Your task to perform on an android device: Open the map Image 0: 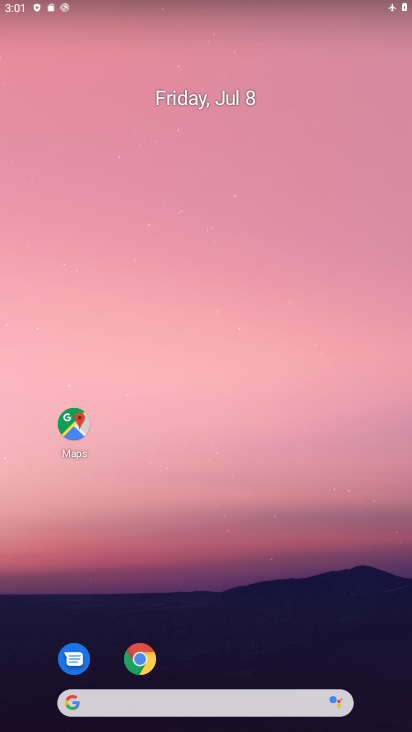
Step 0: click (74, 430)
Your task to perform on an android device: Open the map Image 1: 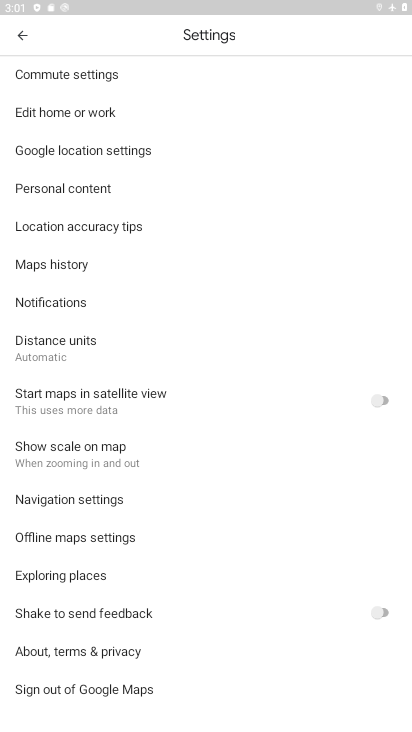
Step 1: click (27, 39)
Your task to perform on an android device: Open the map Image 2: 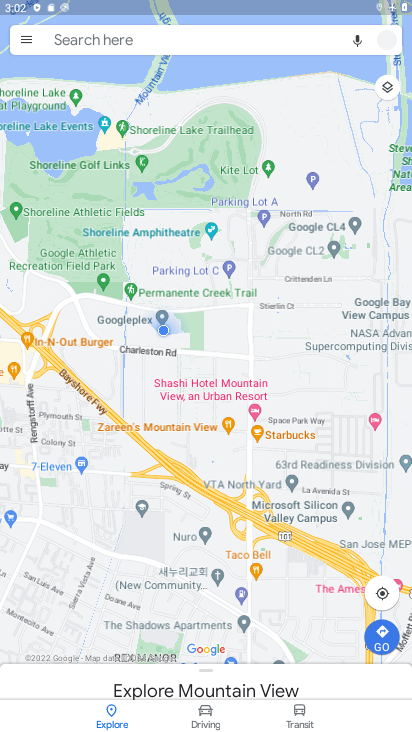
Step 2: task complete